Your task to perform on an android device: turn on data saver in the chrome app Image 0: 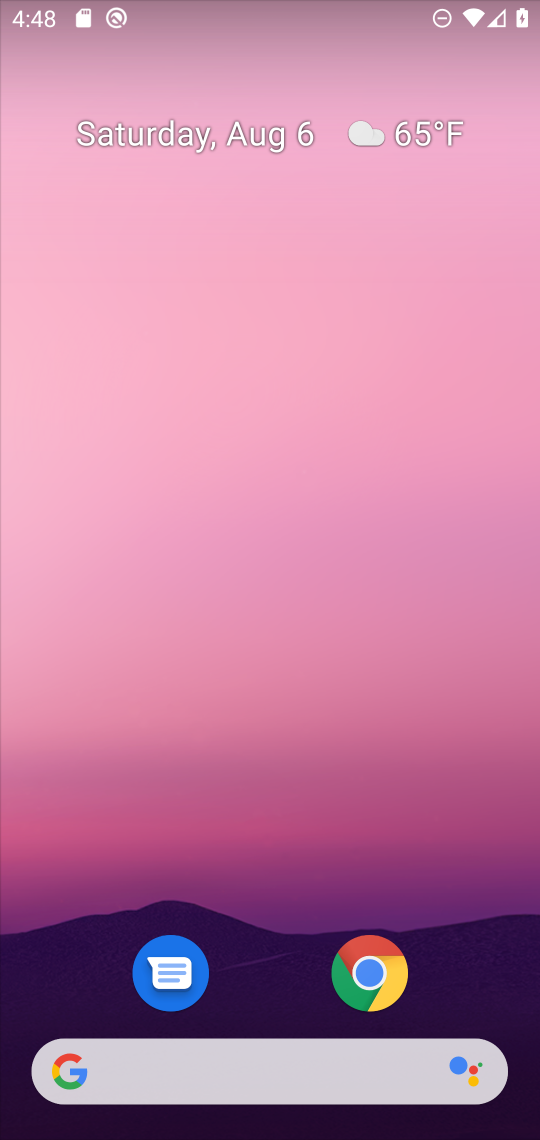
Step 0: drag from (259, 989) to (350, 182)
Your task to perform on an android device: turn on data saver in the chrome app Image 1: 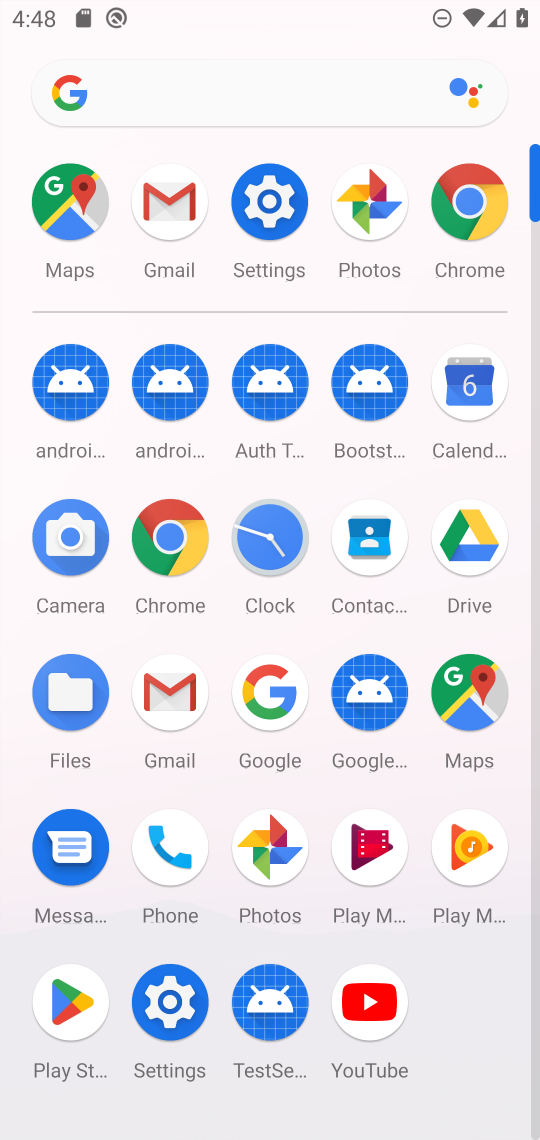
Step 1: click (184, 534)
Your task to perform on an android device: turn on data saver in the chrome app Image 2: 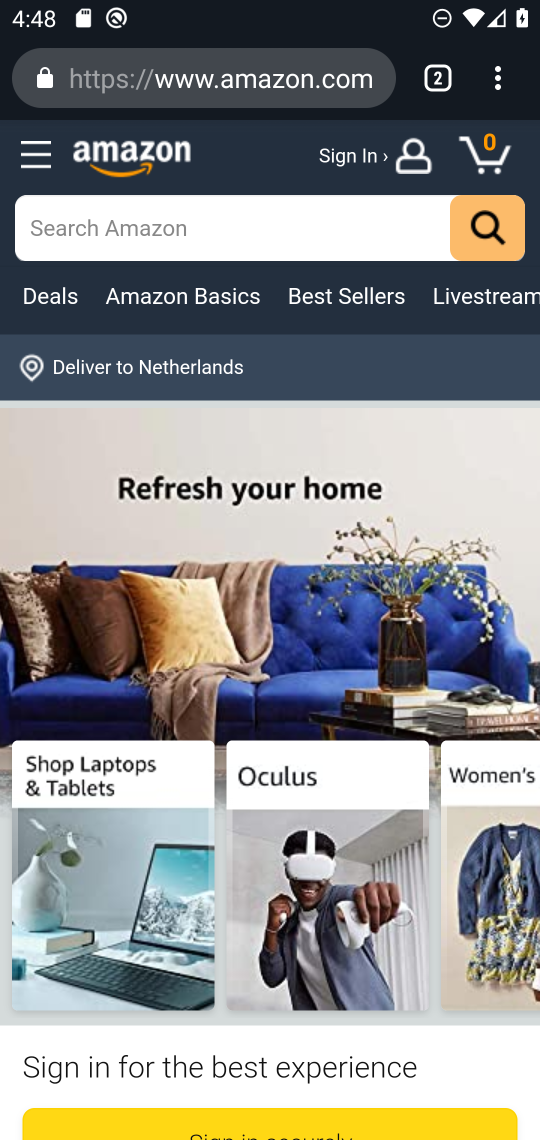
Step 2: drag from (495, 76) to (219, 919)
Your task to perform on an android device: turn on data saver in the chrome app Image 3: 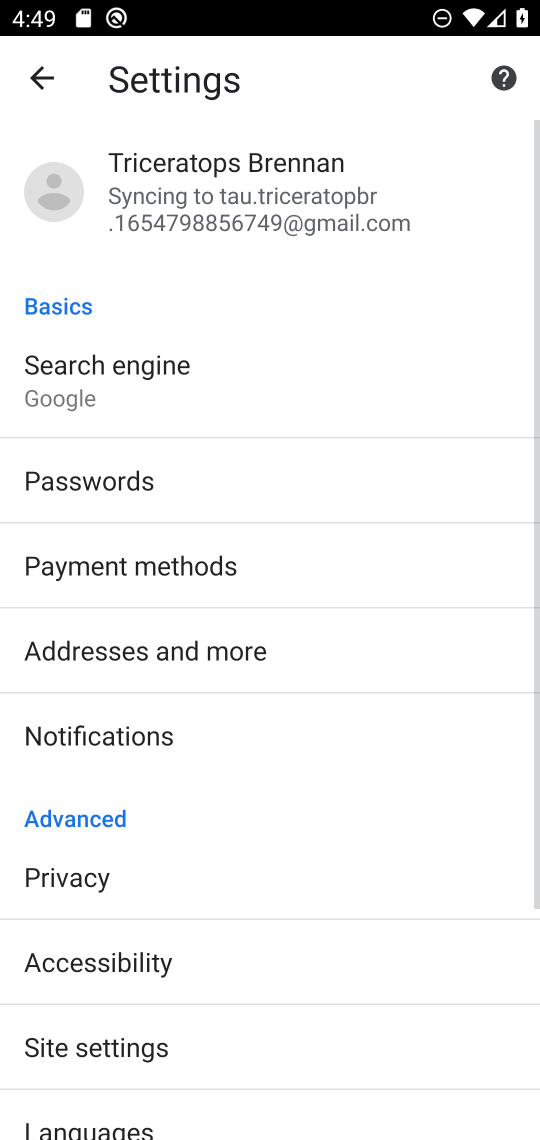
Step 3: drag from (257, 935) to (347, 89)
Your task to perform on an android device: turn on data saver in the chrome app Image 4: 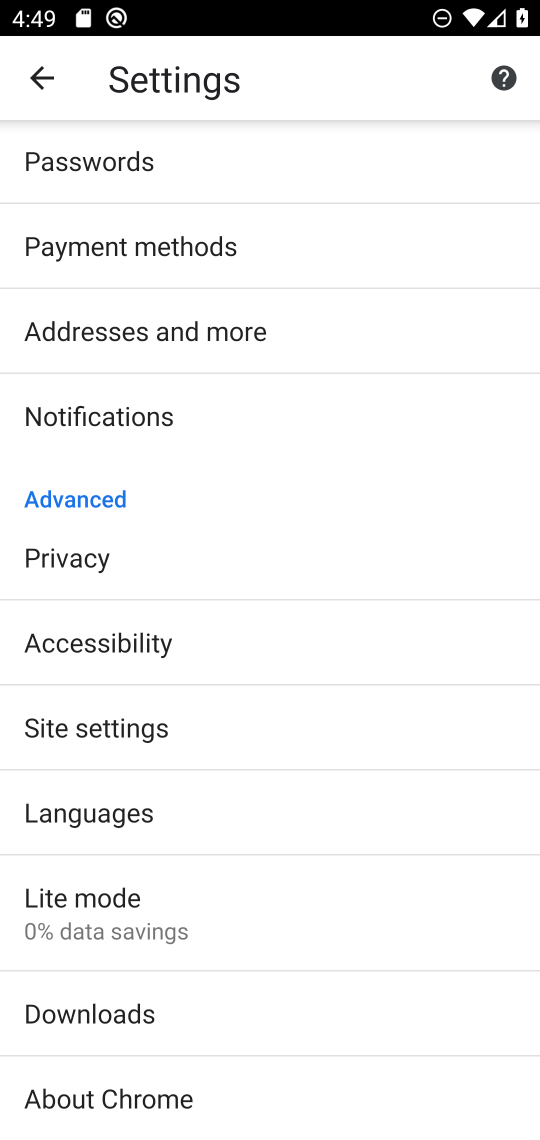
Step 4: click (132, 897)
Your task to perform on an android device: turn on data saver in the chrome app Image 5: 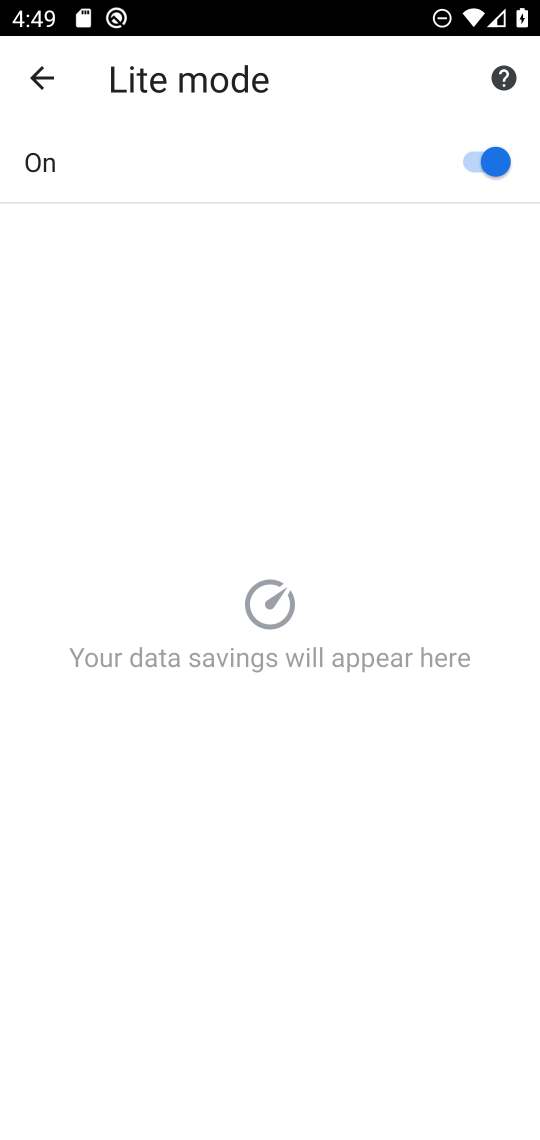
Step 5: task complete